Your task to perform on an android device: Open the stopwatch Image 0: 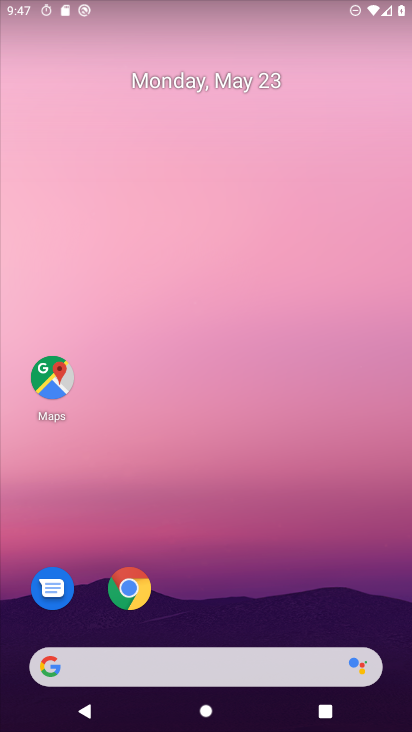
Step 0: drag from (399, 509) to (404, 254)
Your task to perform on an android device: Open the stopwatch Image 1: 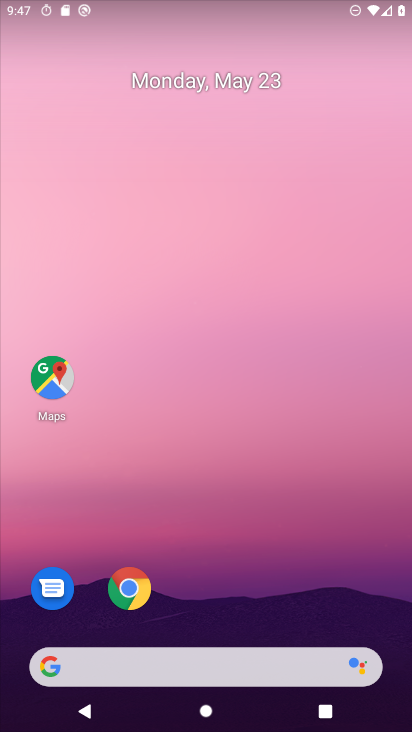
Step 1: drag from (389, 669) to (400, 158)
Your task to perform on an android device: Open the stopwatch Image 2: 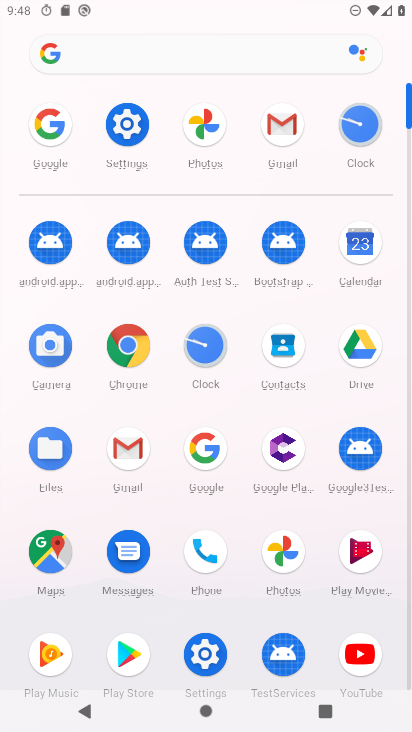
Step 2: click (352, 131)
Your task to perform on an android device: Open the stopwatch Image 3: 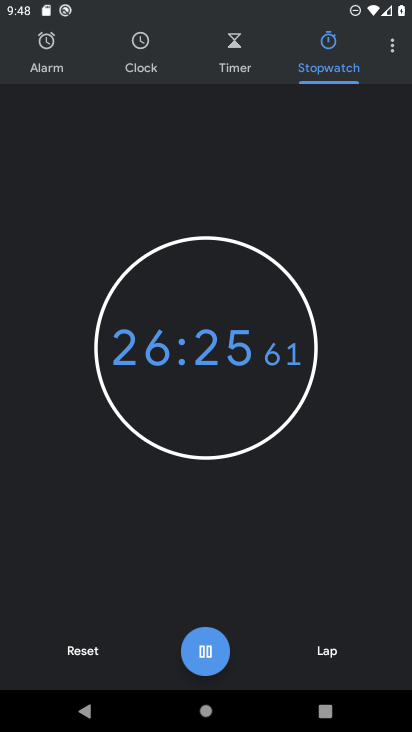
Step 3: task complete